Your task to perform on an android device: turn off location Image 0: 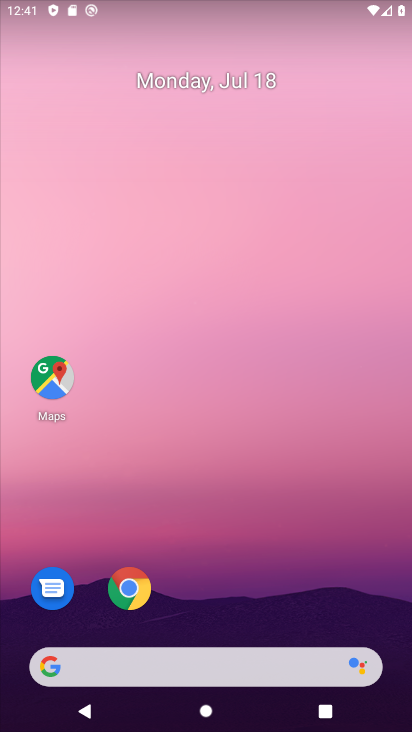
Step 0: drag from (277, 566) to (304, 0)
Your task to perform on an android device: turn off location Image 1: 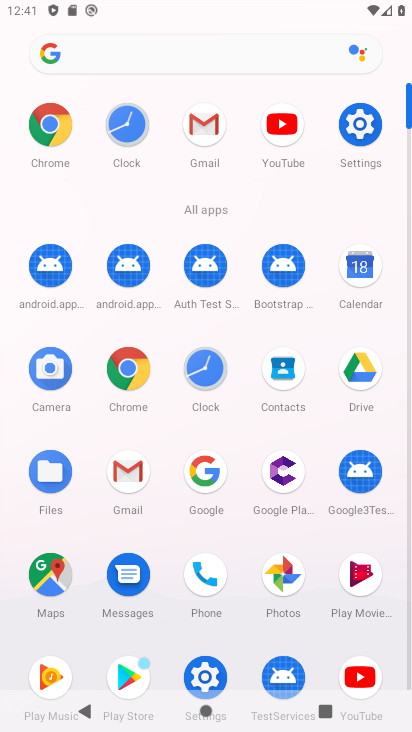
Step 1: click (358, 134)
Your task to perform on an android device: turn off location Image 2: 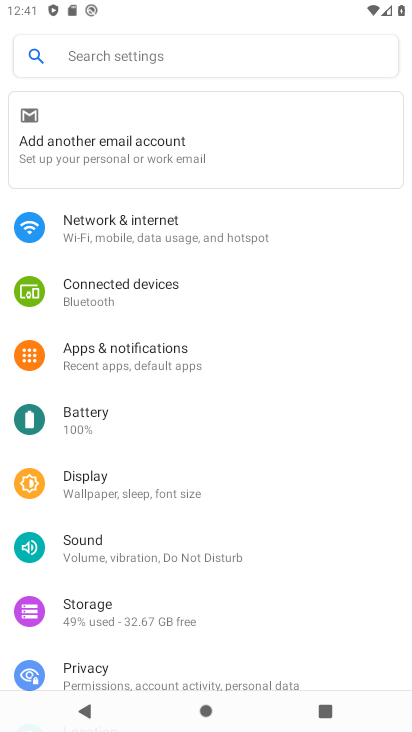
Step 2: drag from (90, 610) to (80, 378)
Your task to perform on an android device: turn off location Image 3: 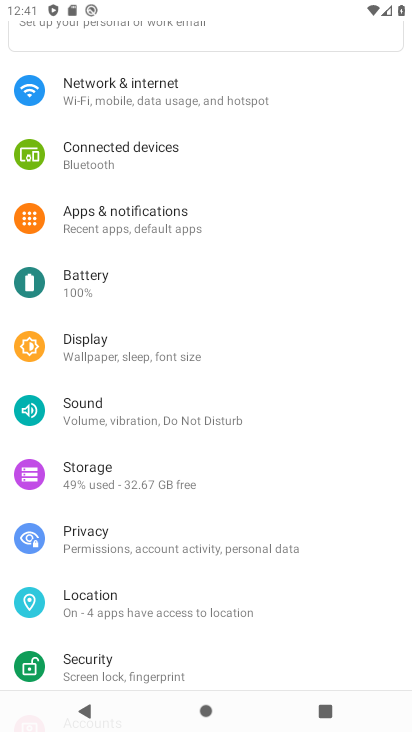
Step 3: click (75, 596)
Your task to perform on an android device: turn off location Image 4: 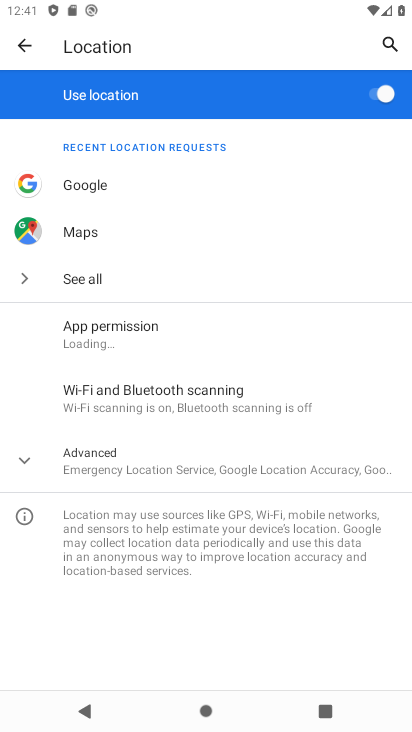
Step 4: click (378, 95)
Your task to perform on an android device: turn off location Image 5: 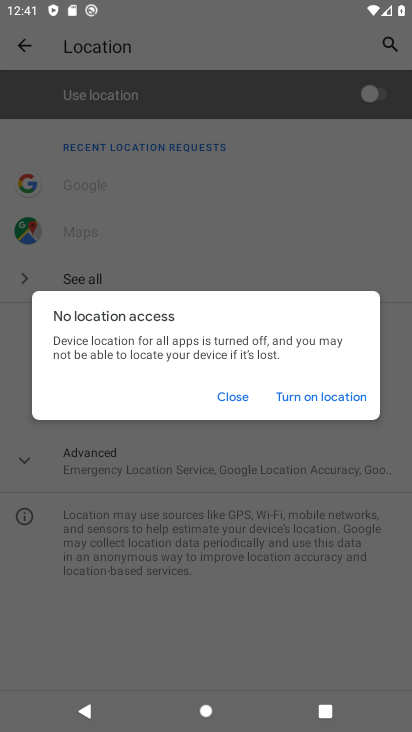
Step 5: task complete